Your task to perform on an android device: empty trash in the gmail app Image 0: 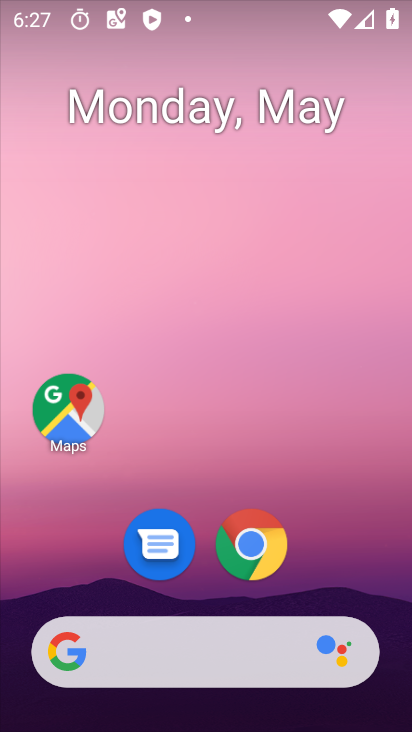
Step 0: drag from (359, 553) to (185, 7)
Your task to perform on an android device: empty trash in the gmail app Image 1: 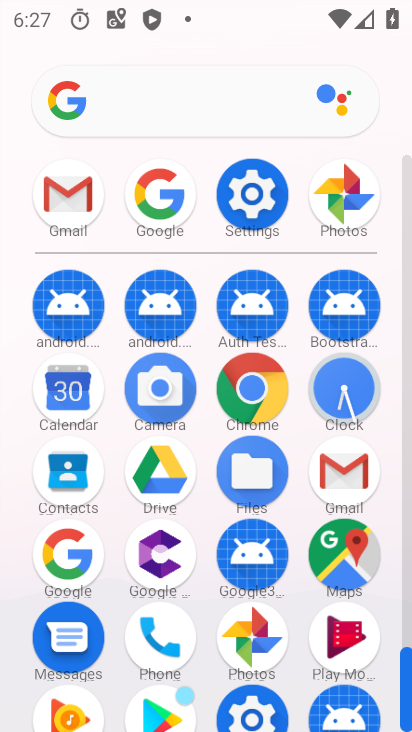
Step 1: click (344, 477)
Your task to perform on an android device: empty trash in the gmail app Image 2: 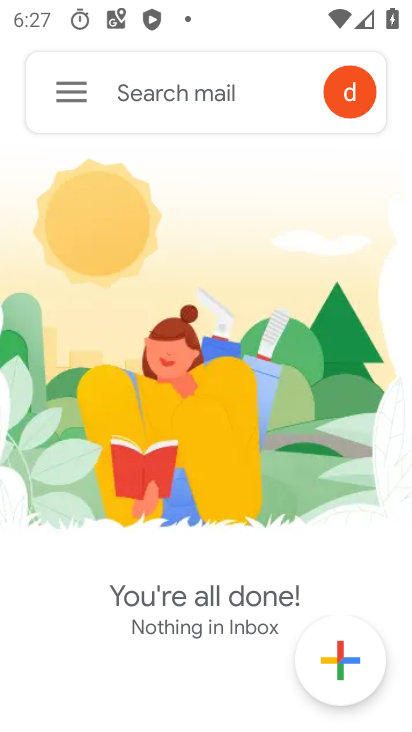
Step 2: click (66, 93)
Your task to perform on an android device: empty trash in the gmail app Image 3: 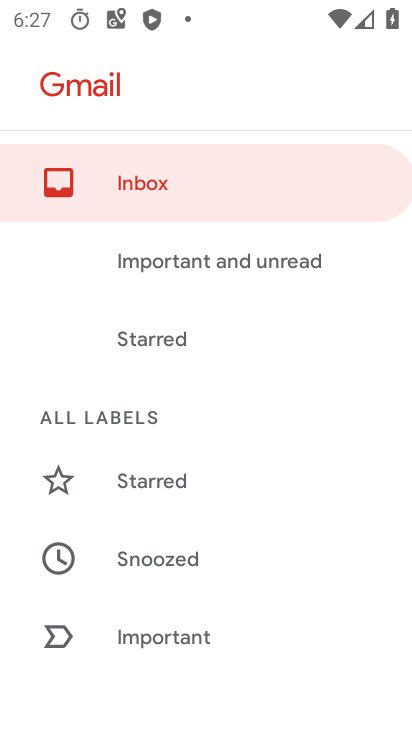
Step 3: drag from (231, 581) to (201, 39)
Your task to perform on an android device: empty trash in the gmail app Image 4: 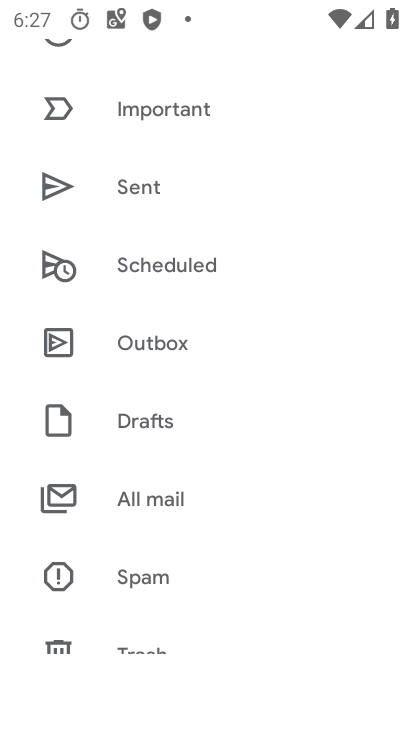
Step 4: drag from (196, 544) to (198, 200)
Your task to perform on an android device: empty trash in the gmail app Image 5: 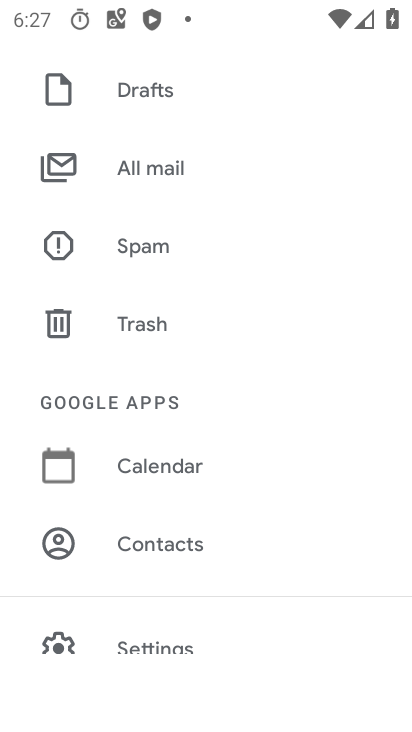
Step 5: click (163, 326)
Your task to perform on an android device: empty trash in the gmail app Image 6: 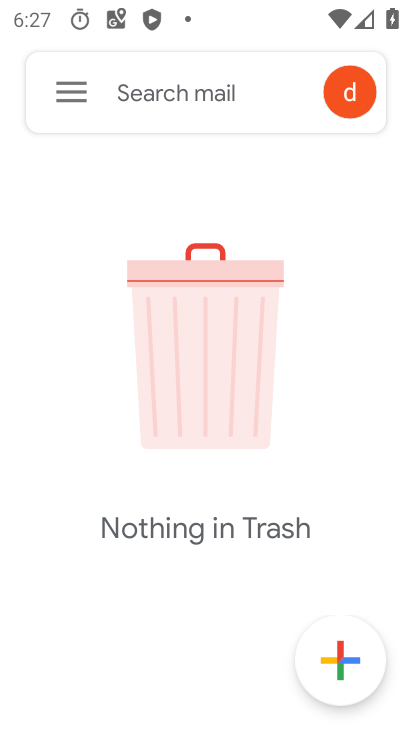
Step 6: task complete